Your task to perform on an android device: Open the stopwatch Image 0: 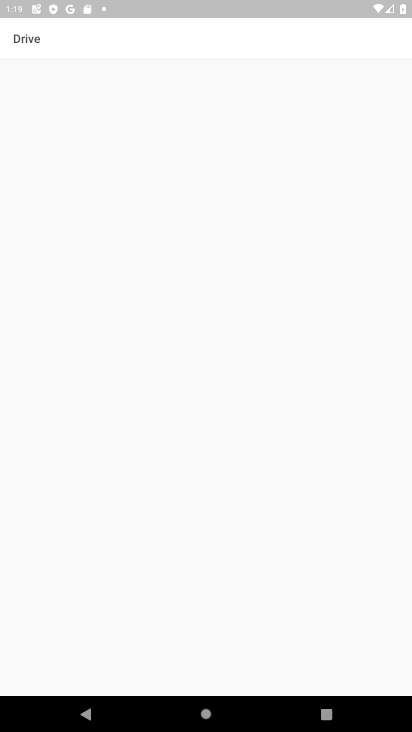
Step 0: press home button
Your task to perform on an android device: Open the stopwatch Image 1: 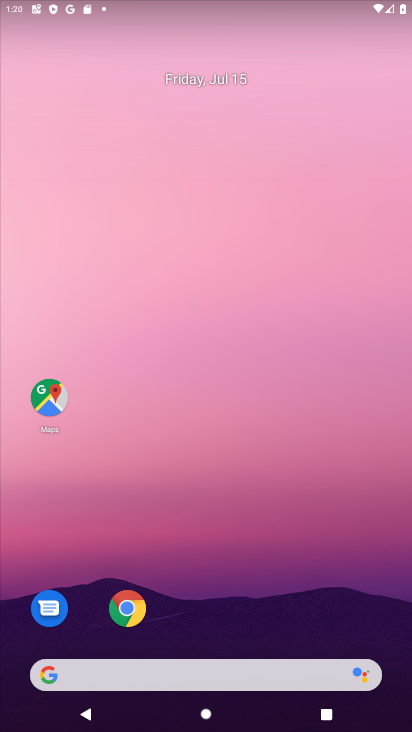
Step 1: drag from (287, 550) to (301, 159)
Your task to perform on an android device: Open the stopwatch Image 2: 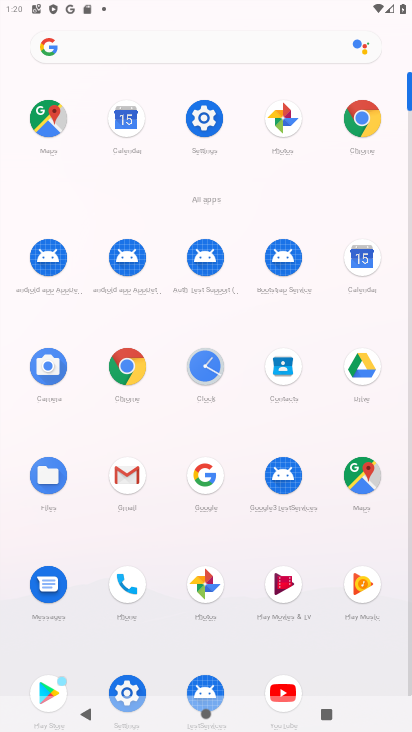
Step 2: click (197, 347)
Your task to perform on an android device: Open the stopwatch Image 3: 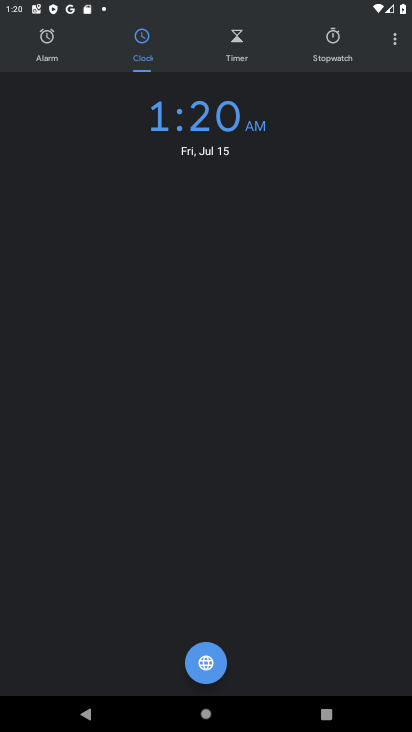
Step 3: click (332, 41)
Your task to perform on an android device: Open the stopwatch Image 4: 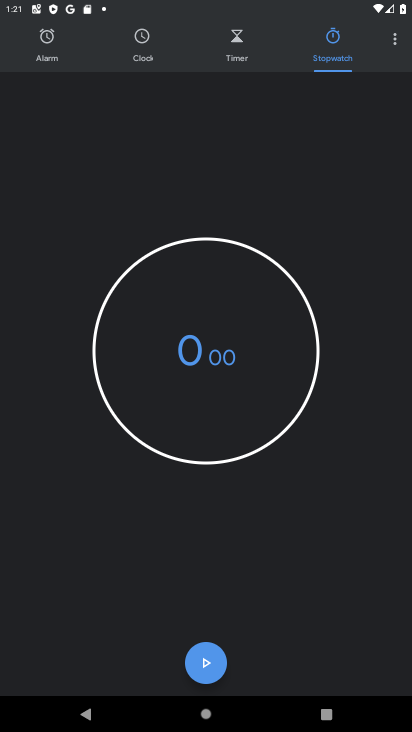
Step 4: task complete